Your task to perform on an android device: Open Yahoo.com Image 0: 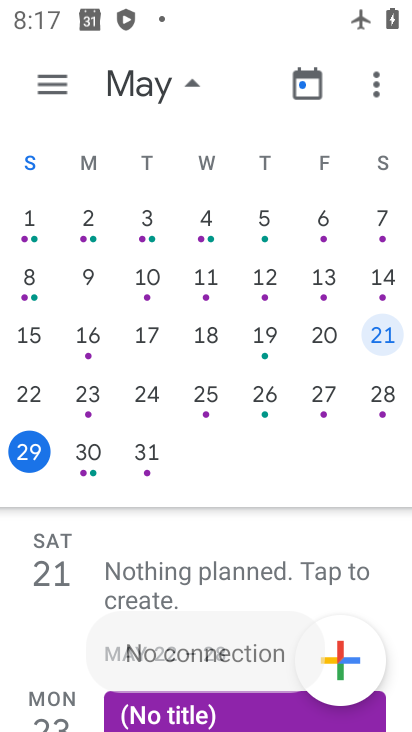
Step 0: drag from (316, 527) to (251, 4)
Your task to perform on an android device: Open Yahoo.com Image 1: 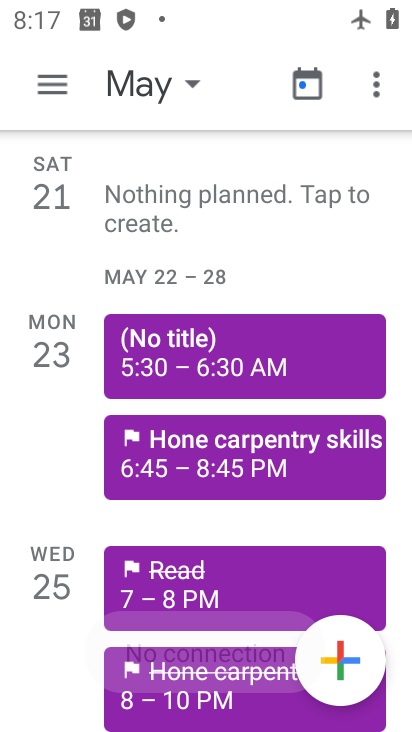
Step 1: press home button
Your task to perform on an android device: Open Yahoo.com Image 2: 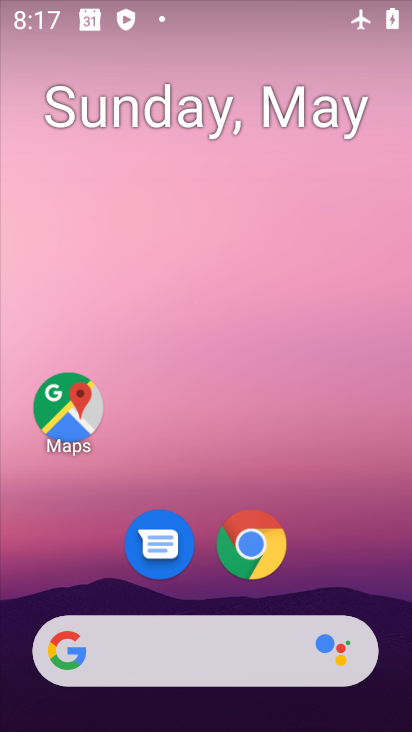
Step 2: drag from (333, 546) to (199, 58)
Your task to perform on an android device: Open Yahoo.com Image 3: 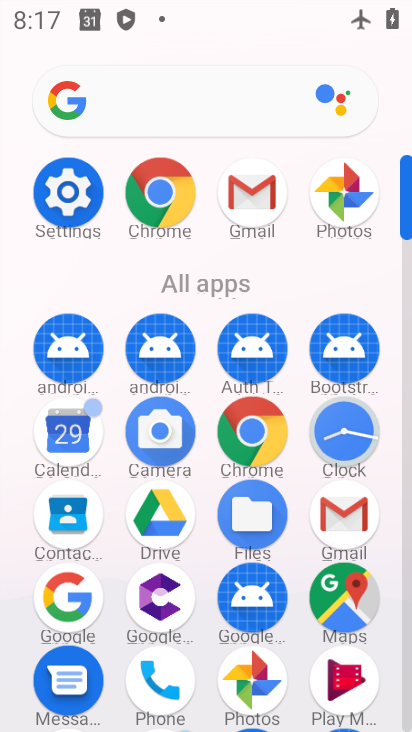
Step 3: click (167, 182)
Your task to perform on an android device: Open Yahoo.com Image 4: 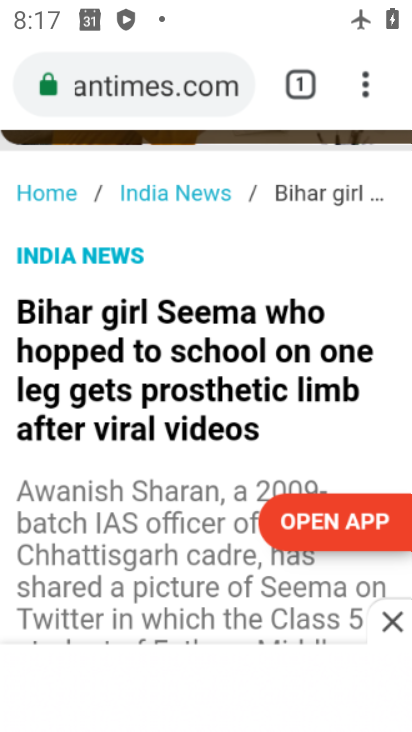
Step 4: click (81, 83)
Your task to perform on an android device: Open Yahoo.com Image 5: 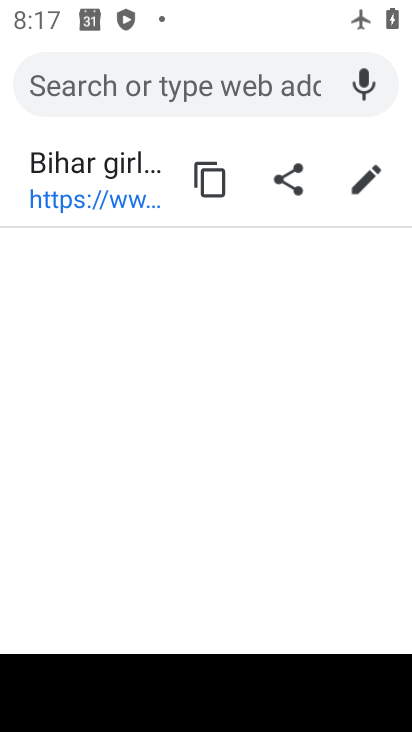
Step 5: type "yahoo"
Your task to perform on an android device: Open Yahoo.com Image 6: 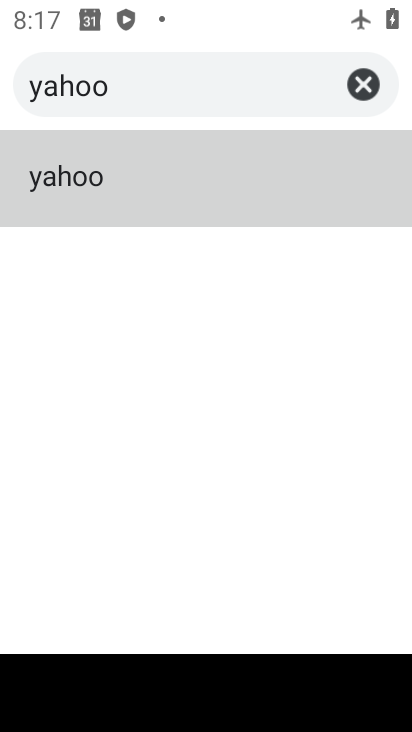
Step 6: type ".com"
Your task to perform on an android device: Open Yahoo.com Image 7: 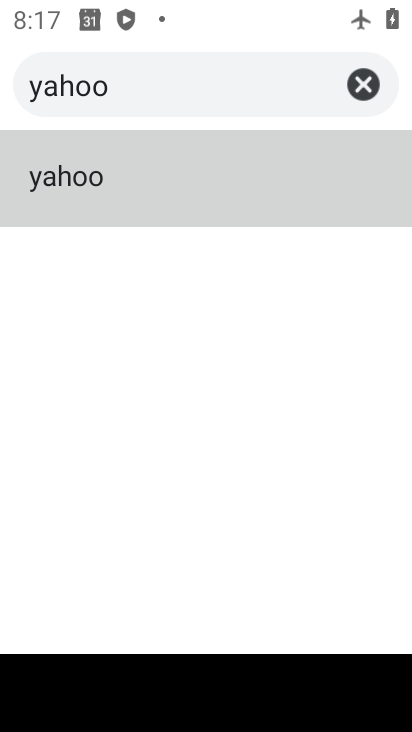
Step 7: click (196, 90)
Your task to perform on an android device: Open Yahoo.com Image 8: 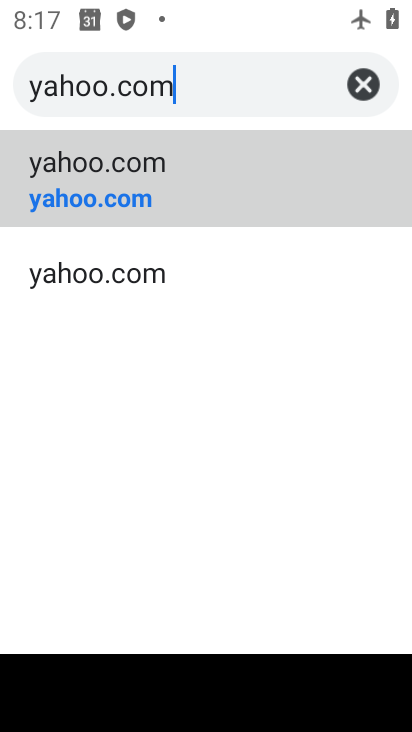
Step 8: click (196, 90)
Your task to perform on an android device: Open Yahoo.com Image 9: 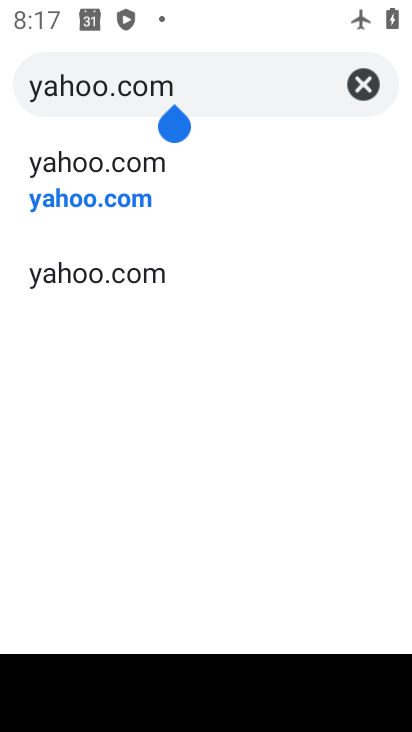
Step 9: click (163, 183)
Your task to perform on an android device: Open Yahoo.com Image 10: 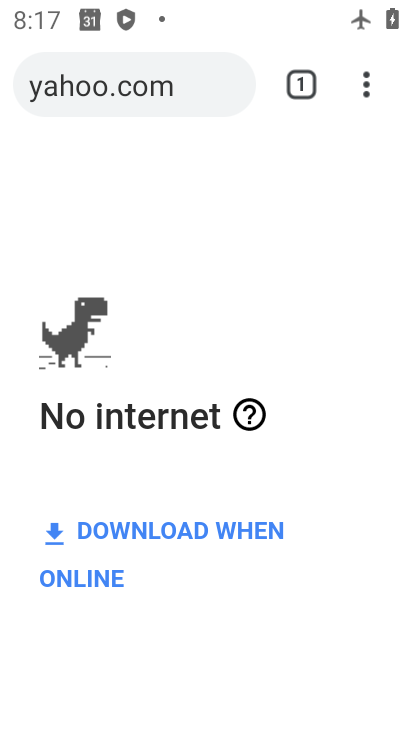
Step 10: task complete